Your task to perform on an android device: open the mobile data screen to see how much data has been used Image 0: 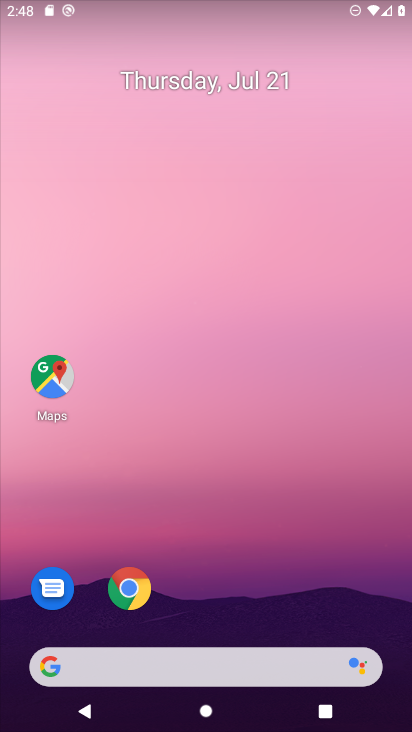
Step 0: drag from (228, 622) to (268, 96)
Your task to perform on an android device: open the mobile data screen to see how much data has been used Image 1: 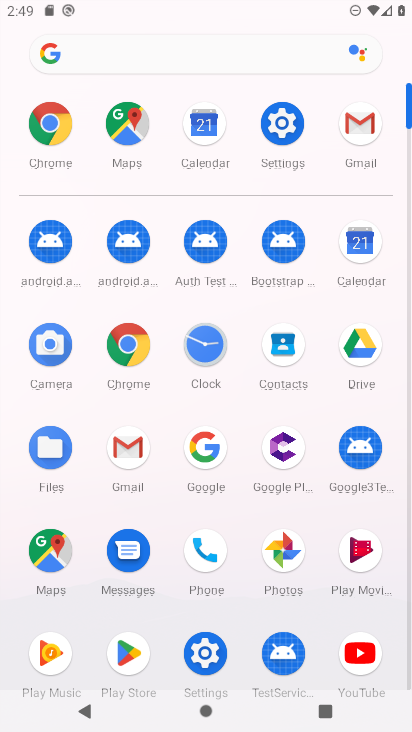
Step 1: click (282, 116)
Your task to perform on an android device: open the mobile data screen to see how much data has been used Image 2: 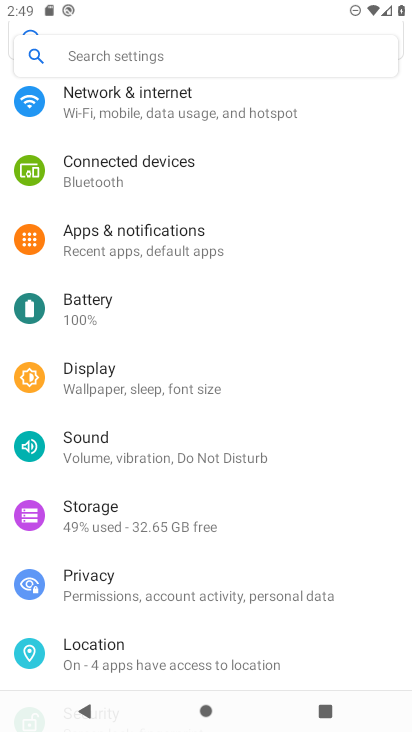
Step 2: click (167, 103)
Your task to perform on an android device: open the mobile data screen to see how much data has been used Image 3: 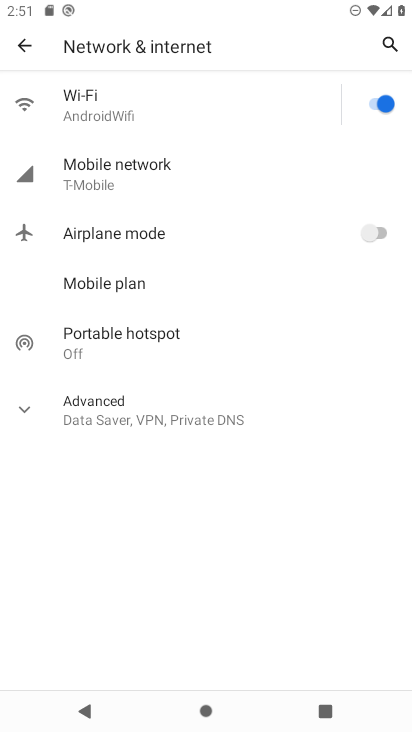
Step 3: click (134, 161)
Your task to perform on an android device: open the mobile data screen to see how much data has been used Image 4: 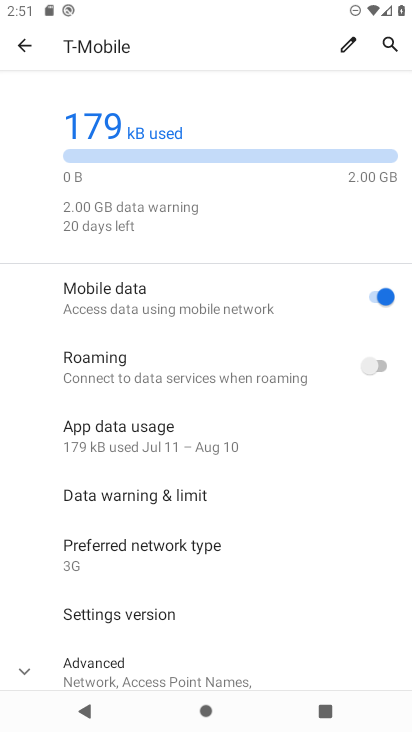
Step 4: click (175, 431)
Your task to perform on an android device: open the mobile data screen to see how much data has been used Image 5: 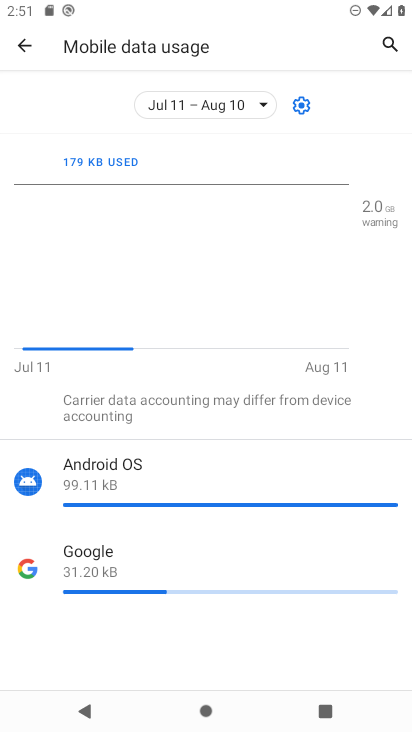
Step 5: task complete